Your task to perform on an android device: Open Google Chrome Image 0: 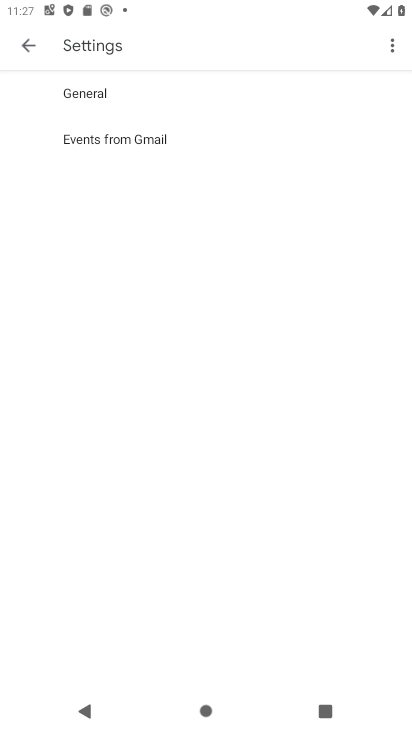
Step 0: press home button
Your task to perform on an android device: Open Google Chrome Image 1: 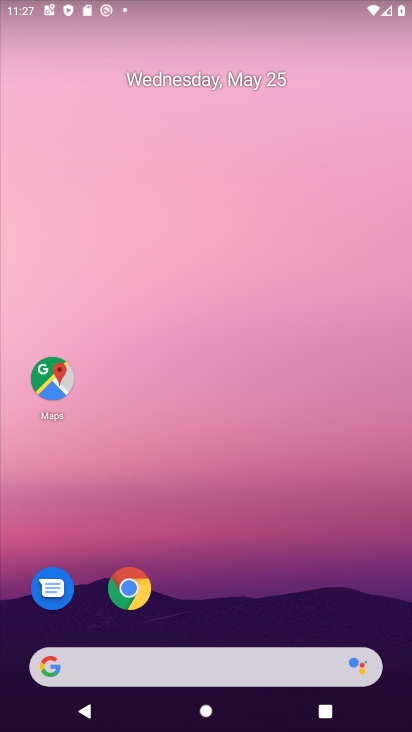
Step 1: drag from (268, 575) to (174, 22)
Your task to perform on an android device: Open Google Chrome Image 2: 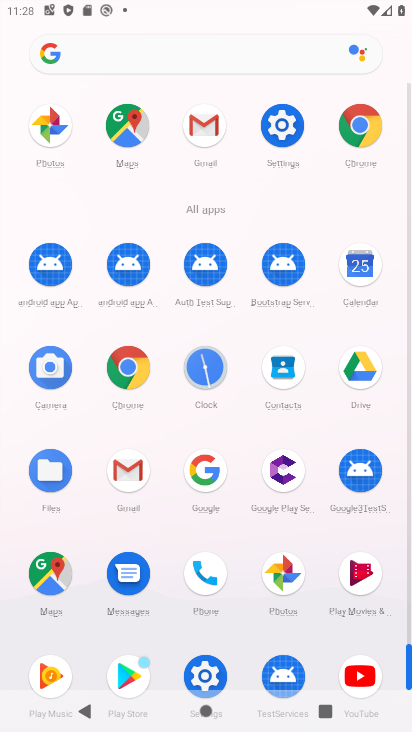
Step 2: click (360, 121)
Your task to perform on an android device: Open Google Chrome Image 3: 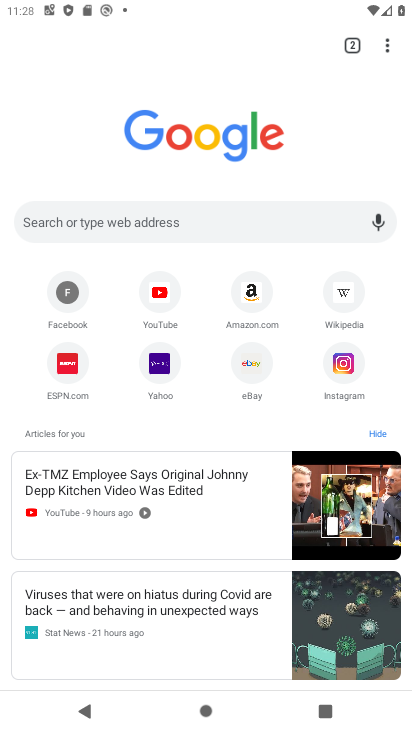
Step 3: task complete